Your task to perform on an android device: snooze an email in the gmail app Image 0: 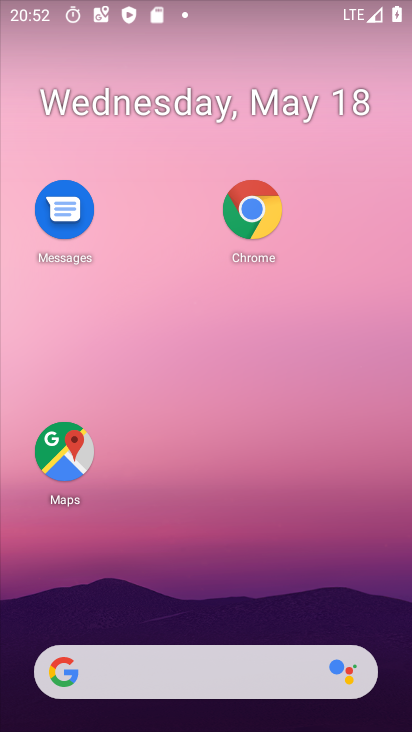
Step 0: drag from (180, 602) to (290, 87)
Your task to perform on an android device: snooze an email in the gmail app Image 1: 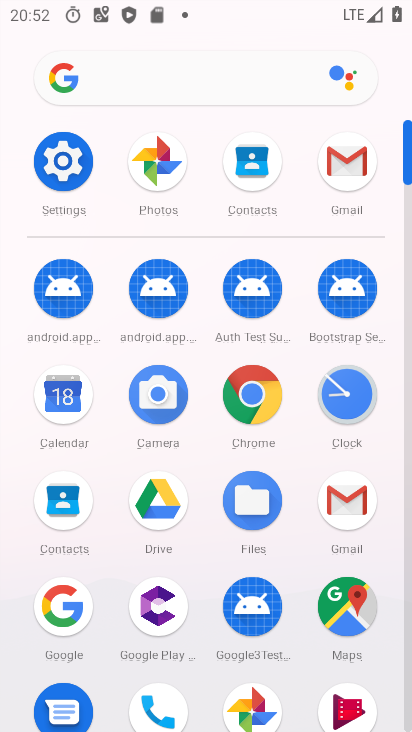
Step 1: click (361, 159)
Your task to perform on an android device: snooze an email in the gmail app Image 2: 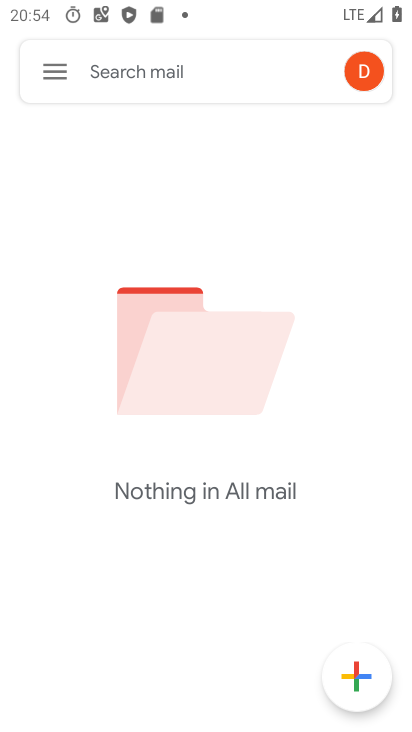
Step 2: task complete